Your task to perform on an android device: change the clock display to analog Image 0: 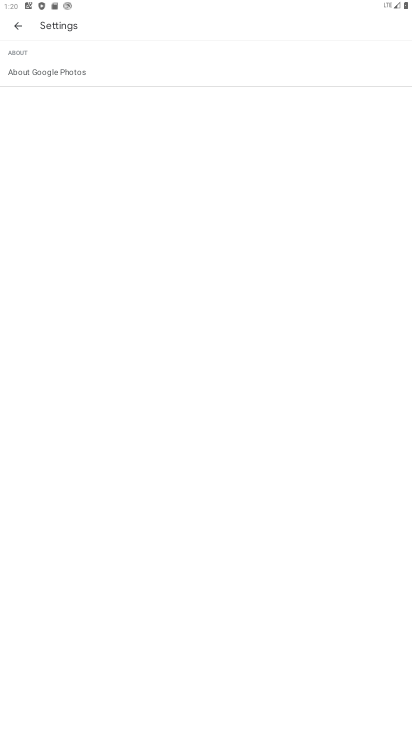
Step 0: press home button
Your task to perform on an android device: change the clock display to analog Image 1: 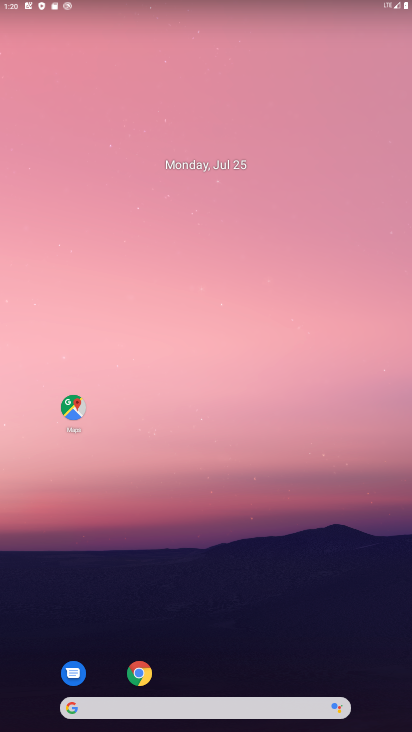
Step 1: drag from (376, 683) to (342, 71)
Your task to perform on an android device: change the clock display to analog Image 2: 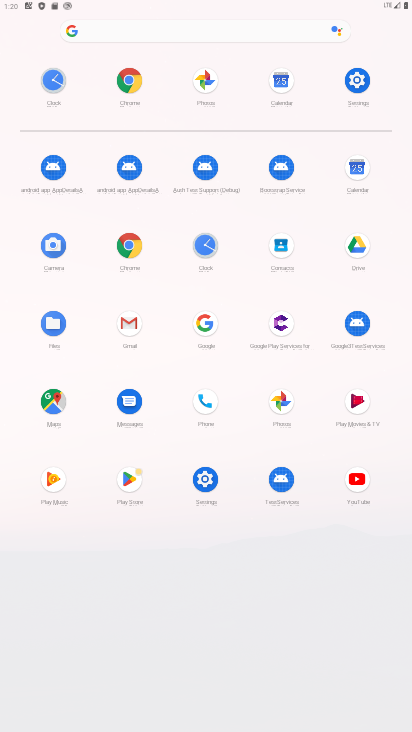
Step 2: click (204, 246)
Your task to perform on an android device: change the clock display to analog Image 3: 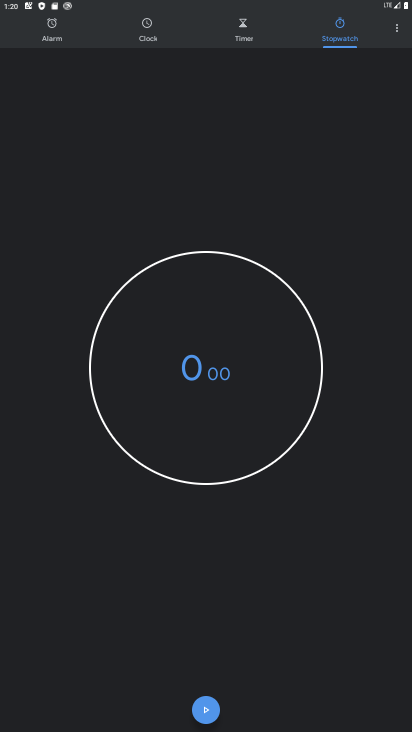
Step 3: click (396, 36)
Your task to perform on an android device: change the clock display to analog Image 4: 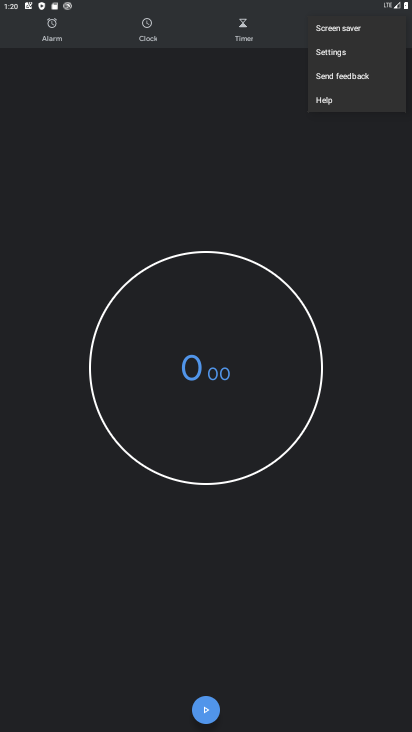
Step 4: click (332, 46)
Your task to perform on an android device: change the clock display to analog Image 5: 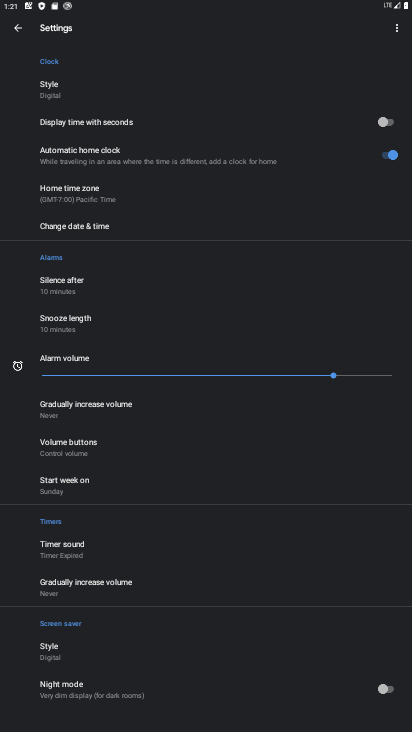
Step 5: click (51, 87)
Your task to perform on an android device: change the clock display to analog Image 6: 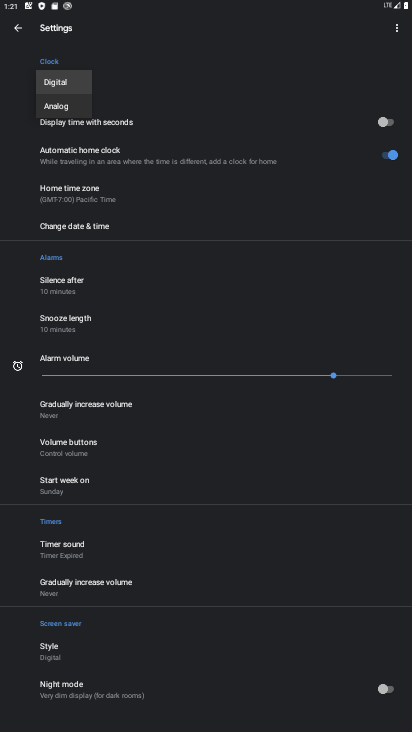
Step 6: click (56, 107)
Your task to perform on an android device: change the clock display to analog Image 7: 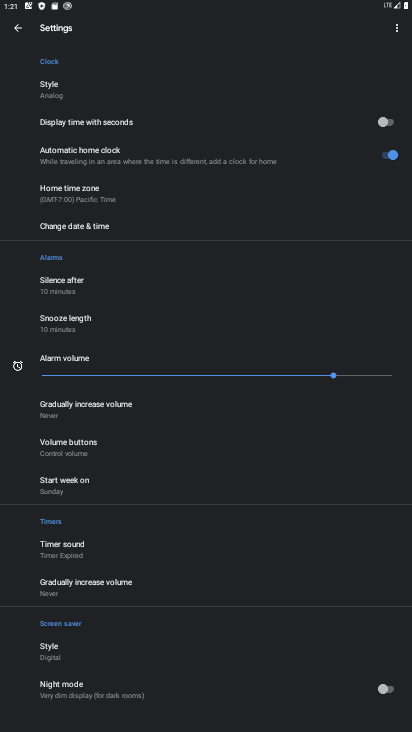
Step 7: task complete